Your task to perform on an android device: open sync settings in chrome Image 0: 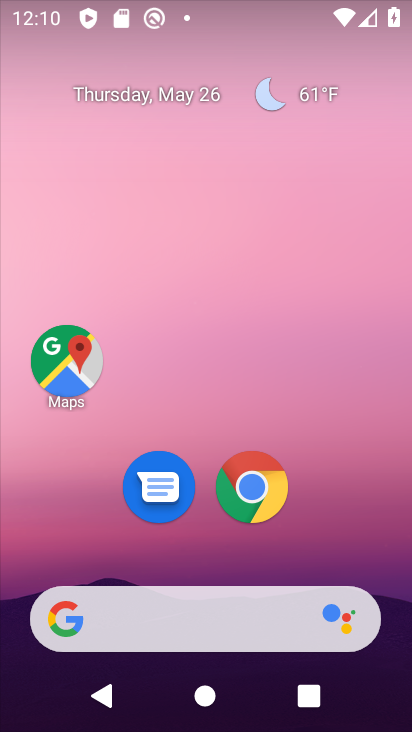
Step 0: drag from (264, 646) to (273, 314)
Your task to perform on an android device: open sync settings in chrome Image 1: 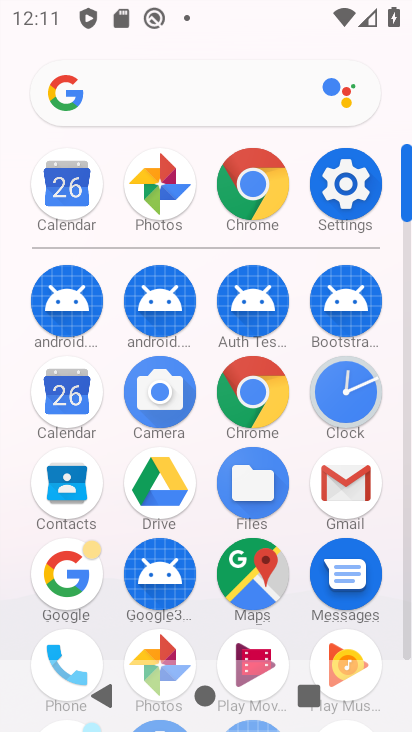
Step 1: click (267, 173)
Your task to perform on an android device: open sync settings in chrome Image 2: 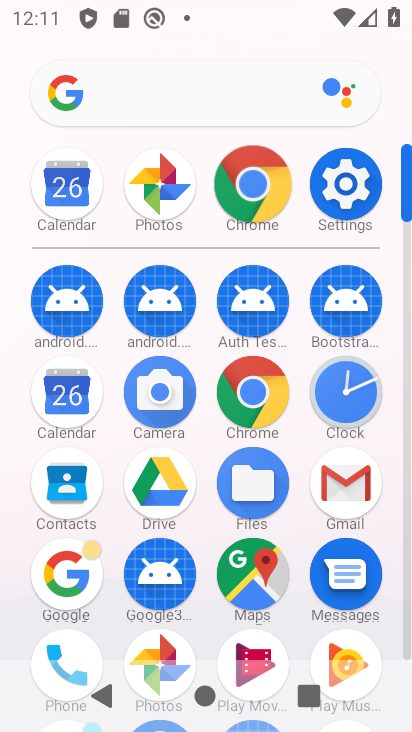
Step 2: click (267, 173)
Your task to perform on an android device: open sync settings in chrome Image 3: 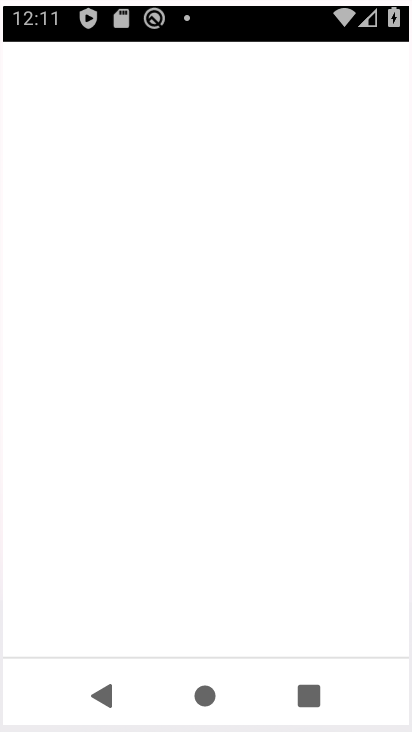
Step 3: click (267, 173)
Your task to perform on an android device: open sync settings in chrome Image 4: 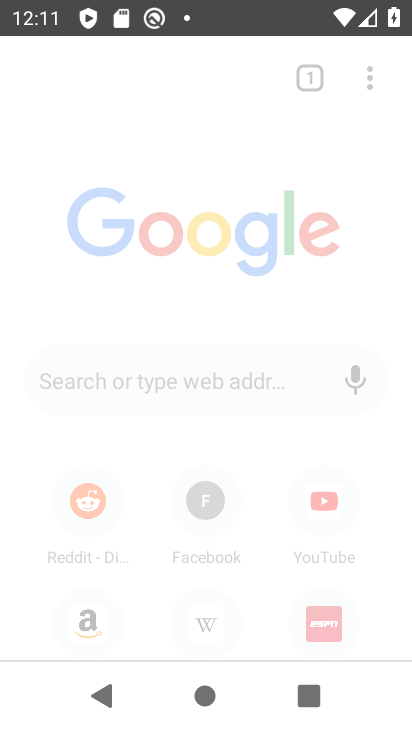
Step 4: click (266, 172)
Your task to perform on an android device: open sync settings in chrome Image 5: 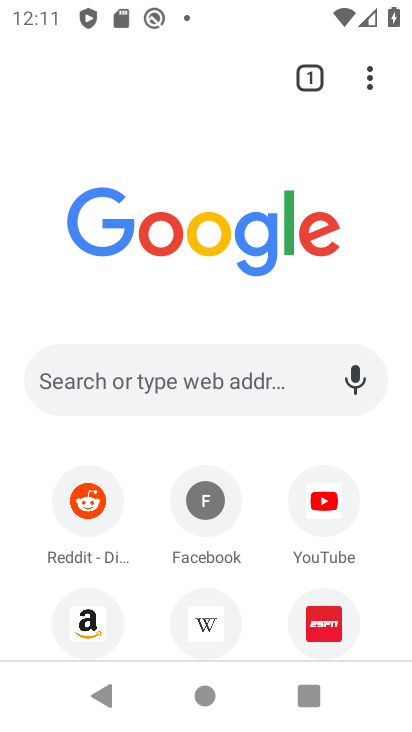
Step 5: drag from (365, 82) to (73, 550)
Your task to perform on an android device: open sync settings in chrome Image 6: 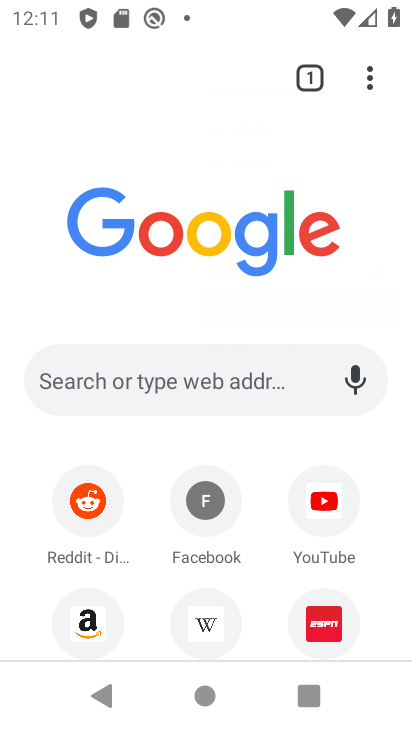
Step 6: click (80, 545)
Your task to perform on an android device: open sync settings in chrome Image 7: 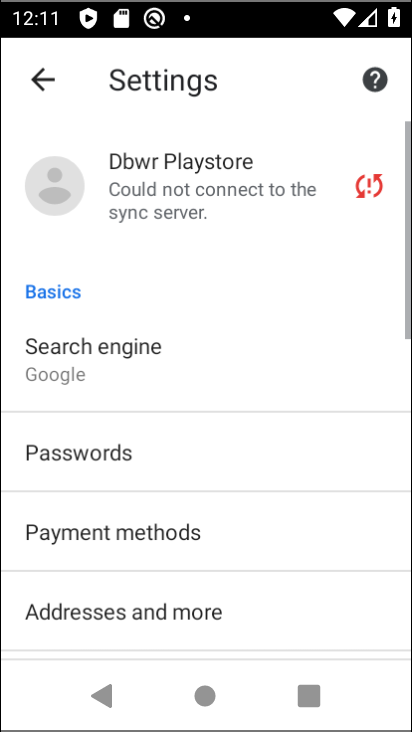
Step 7: click (84, 529)
Your task to perform on an android device: open sync settings in chrome Image 8: 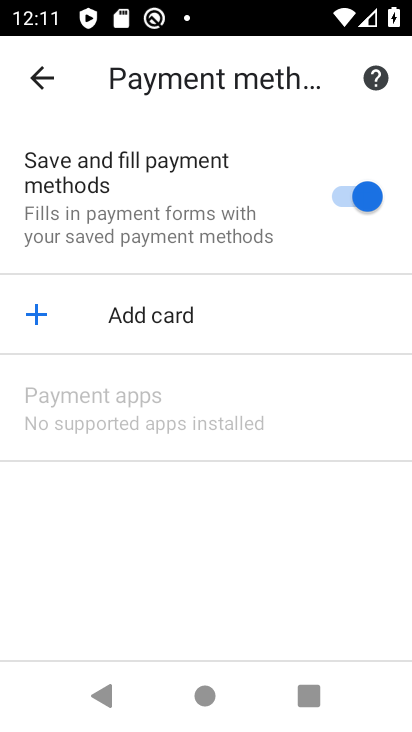
Step 8: click (47, 77)
Your task to perform on an android device: open sync settings in chrome Image 9: 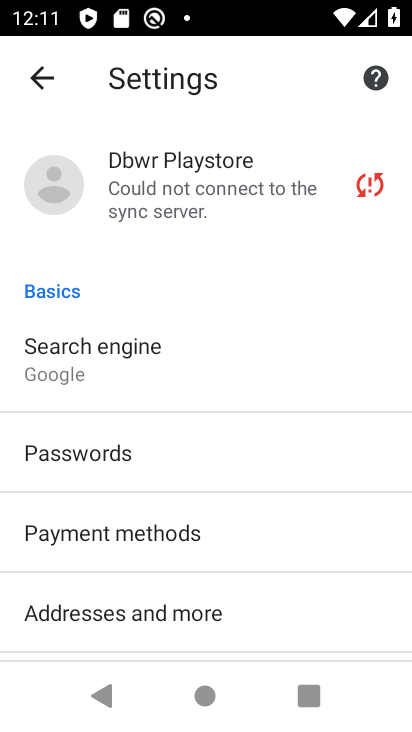
Step 9: drag from (240, 520) to (191, 74)
Your task to perform on an android device: open sync settings in chrome Image 10: 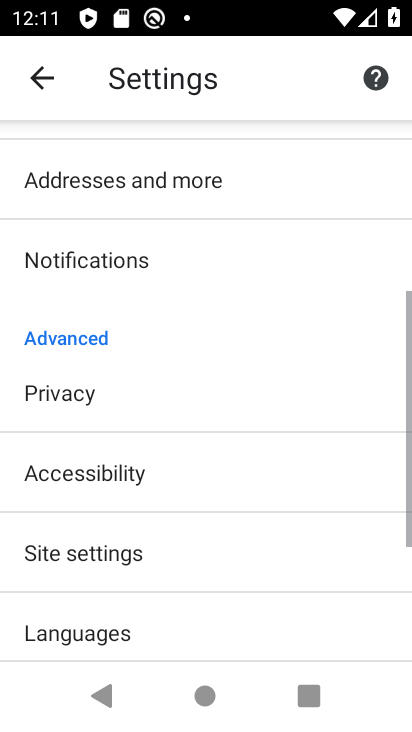
Step 10: drag from (179, 479) to (171, 213)
Your task to perform on an android device: open sync settings in chrome Image 11: 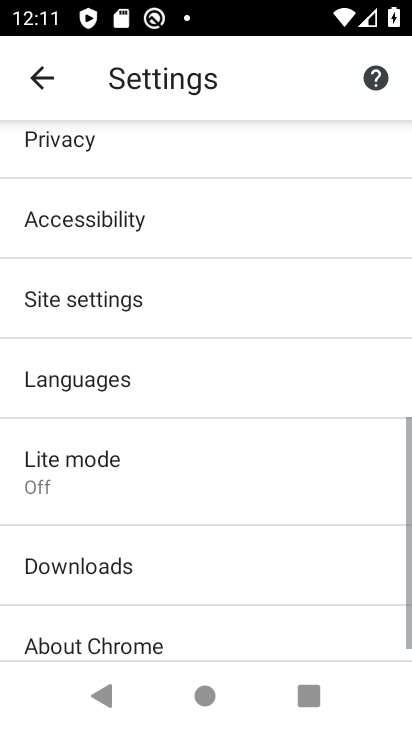
Step 11: drag from (174, 323) to (182, 81)
Your task to perform on an android device: open sync settings in chrome Image 12: 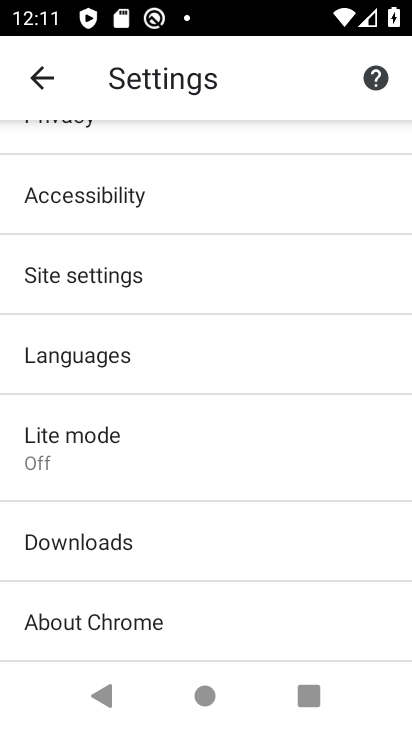
Step 12: click (70, 280)
Your task to perform on an android device: open sync settings in chrome Image 13: 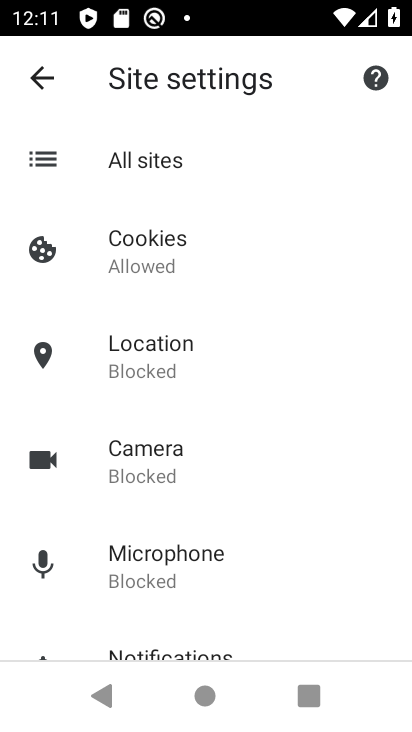
Step 13: drag from (245, 541) to (239, 156)
Your task to perform on an android device: open sync settings in chrome Image 14: 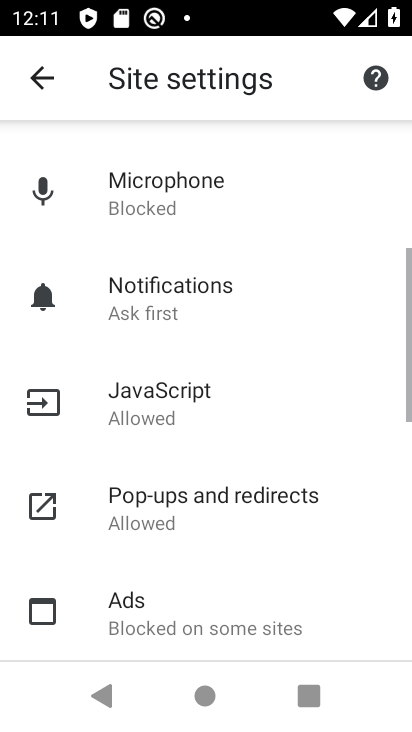
Step 14: drag from (158, 279) to (137, 188)
Your task to perform on an android device: open sync settings in chrome Image 15: 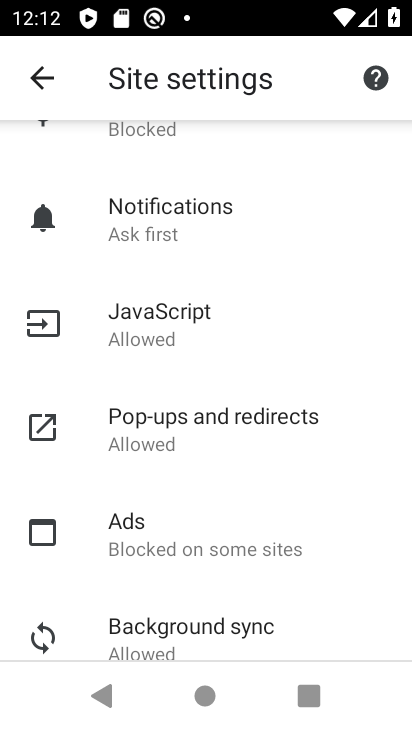
Step 15: click (148, 632)
Your task to perform on an android device: open sync settings in chrome Image 16: 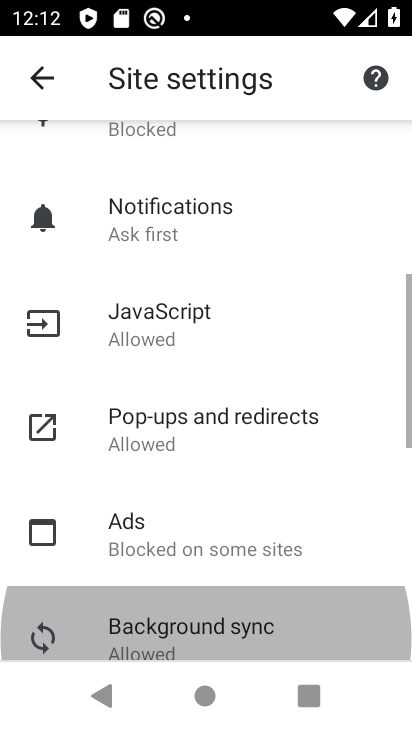
Step 16: click (150, 630)
Your task to perform on an android device: open sync settings in chrome Image 17: 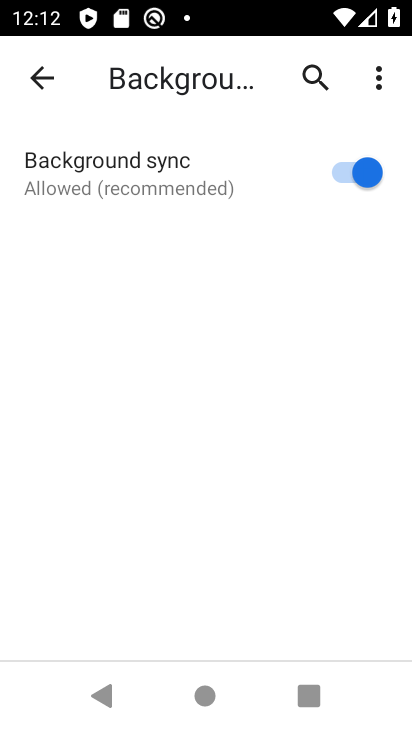
Step 17: click (151, 628)
Your task to perform on an android device: open sync settings in chrome Image 18: 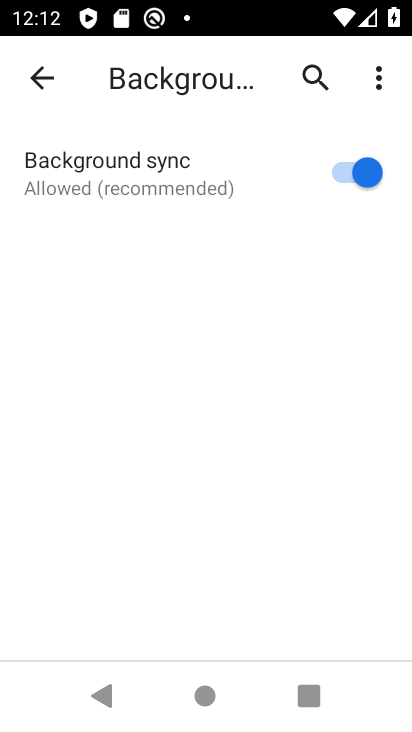
Step 18: click (153, 627)
Your task to perform on an android device: open sync settings in chrome Image 19: 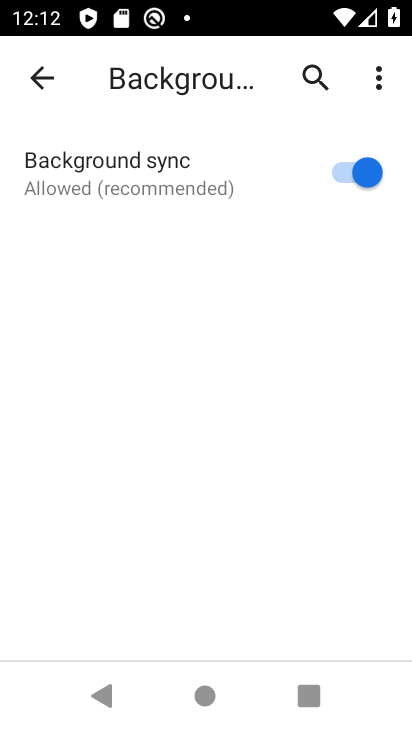
Step 19: task complete